Your task to perform on an android device: find photos in the google photos app Image 0: 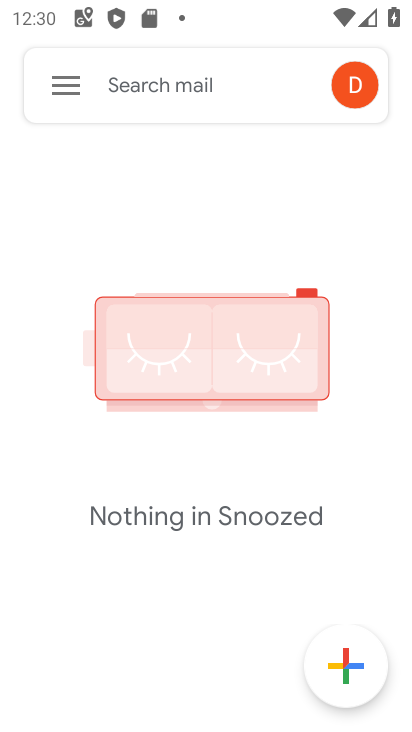
Step 0: press home button
Your task to perform on an android device: find photos in the google photos app Image 1: 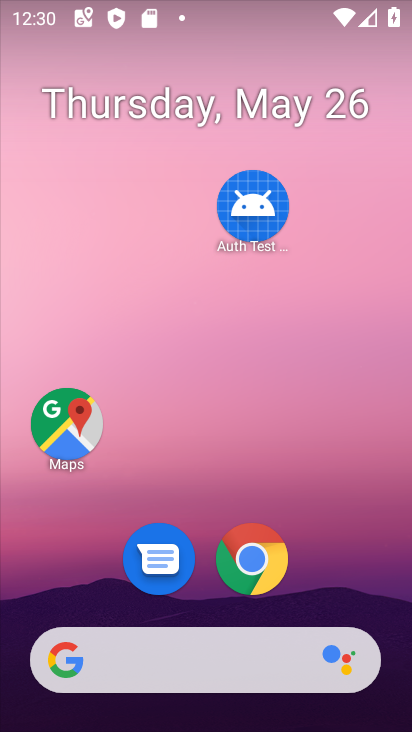
Step 1: drag from (337, 552) to (330, 118)
Your task to perform on an android device: find photos in the google photos app Image 2: 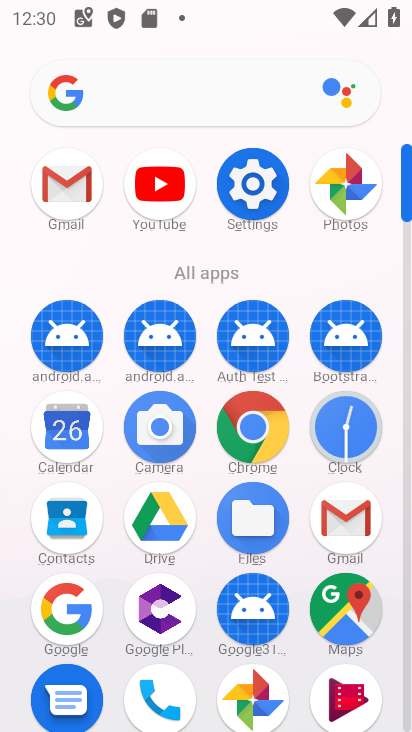
Step 2: click (252, 687)
Your task to perform on an android device: find photos in the google photos app Image 3: 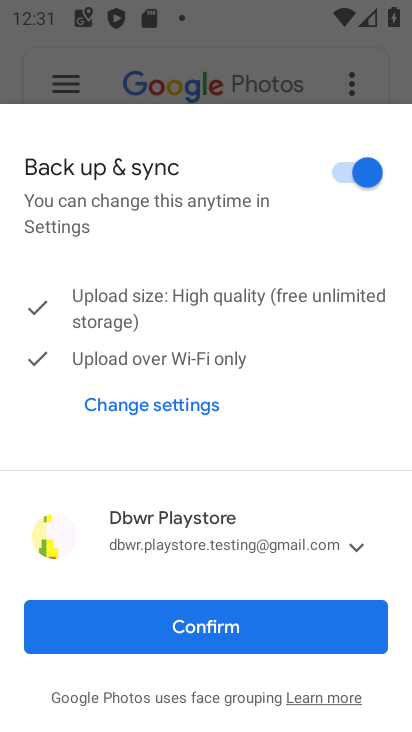
Step 3: click (261, 643)
Your task to perform on an android device: find photos in the google photos app Image 4: 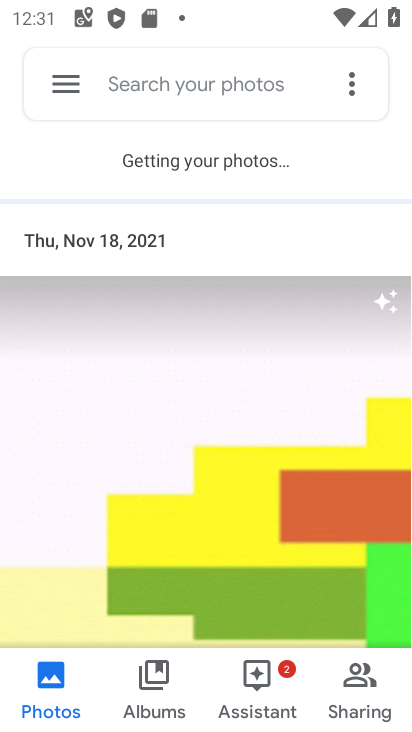
Step 4: task complete